Your task to perform on an android device: uninstall "Paramount+ | Peak Streaming" Image 0: 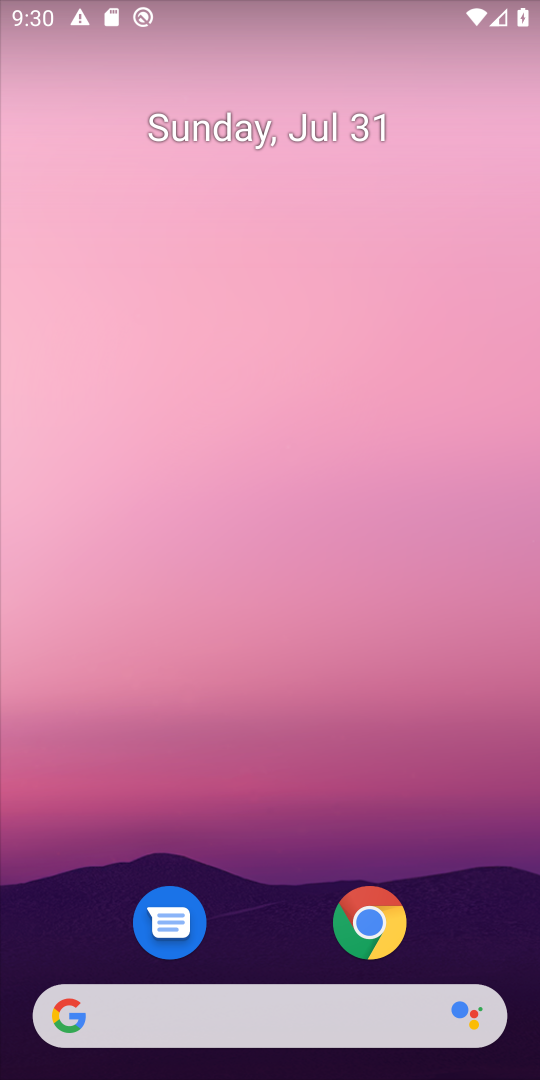
Step 0: drag from (266, 1049) to (264, 57)
Your task to perform on an android device: uninstall "Paramount+ | Peak Streaming" Image 1: 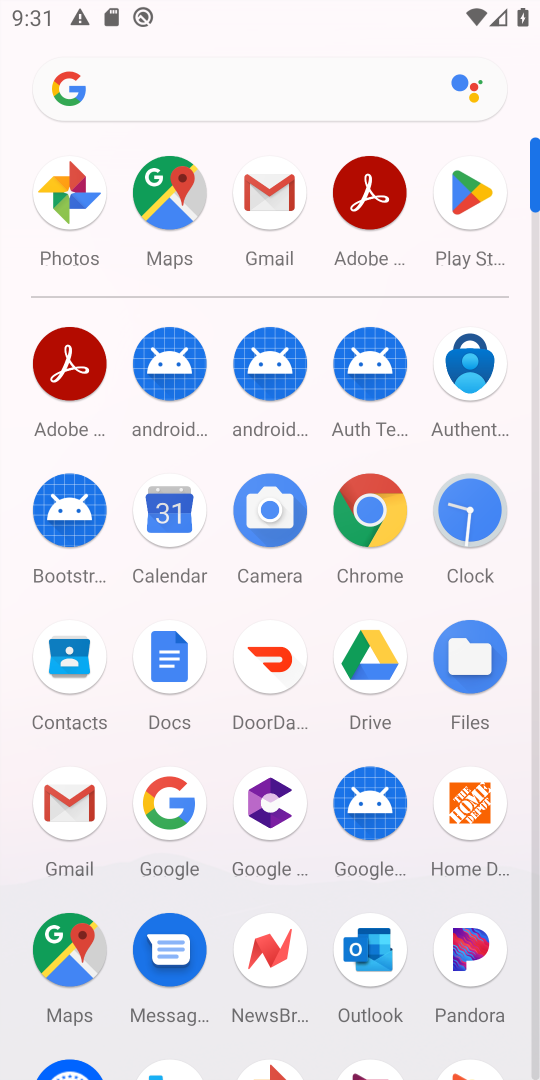
Step 1: click (462, 184)
Your task to perform on an android device: uninstall "Paramount+ | Peak Streaming" Image 2: 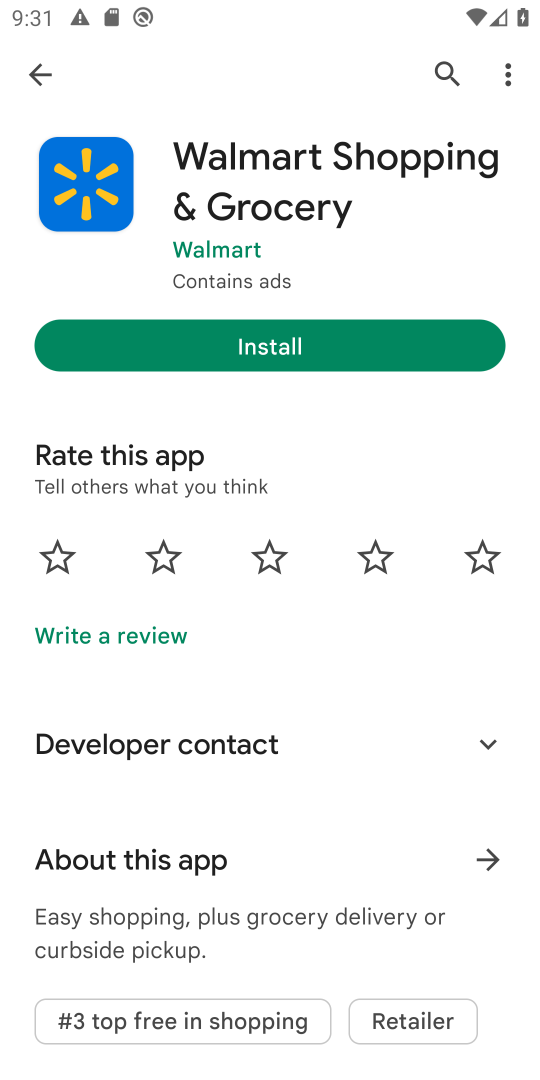
Step 2: click (452, 69)
Your task to perform on an android device: uninstall "Paramount+ | Peak Streaming" Image 3: 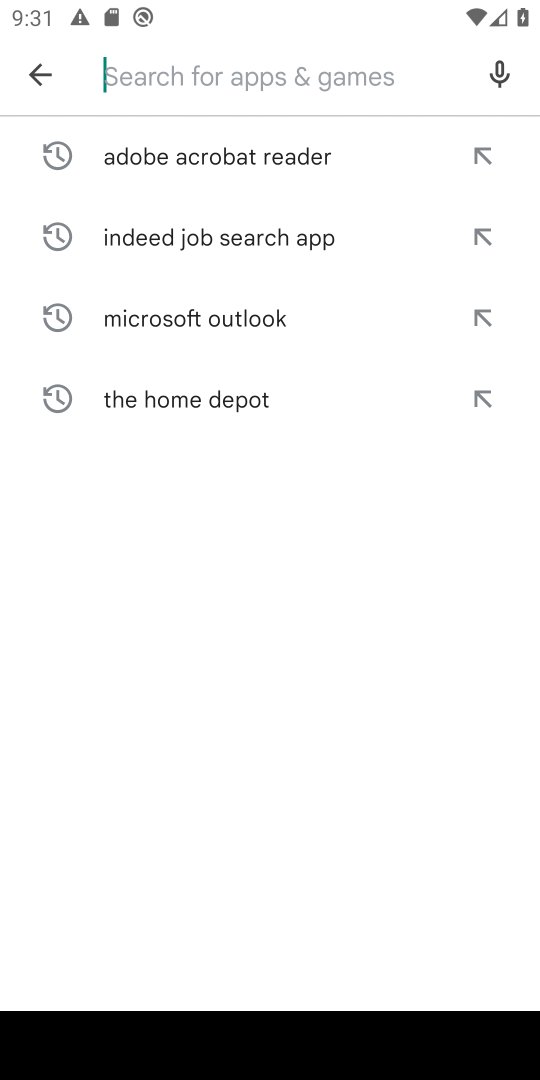
Step 3: type "Paramount+ | Peak Streaming"
Your task to perform on an android device: uninstall "Paramount+ | Peak Streaming" Image 4: 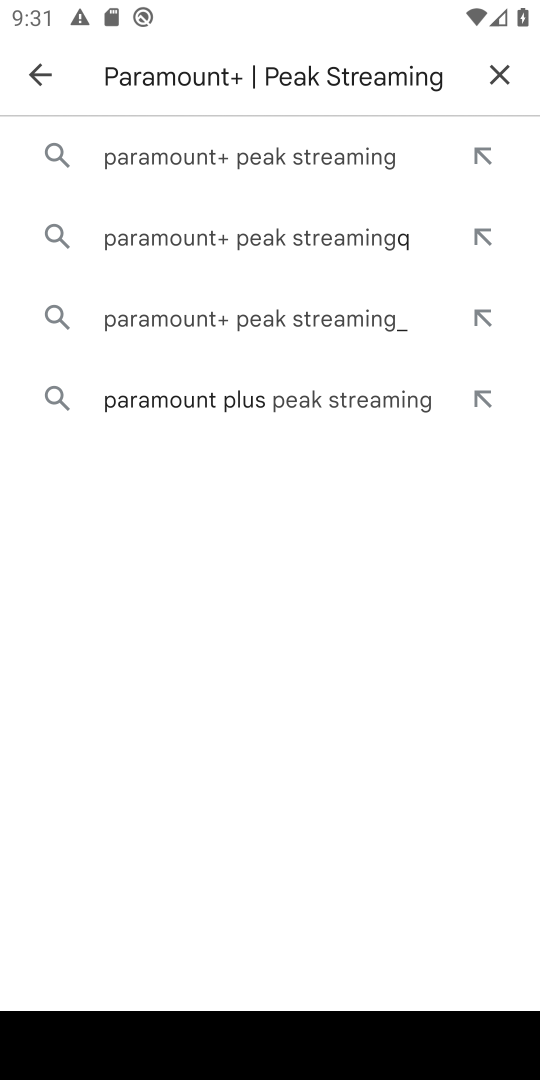
Step 4: click (224, 163)
Your task to perform on an android device: uninstall "Paramount+ | Peak Streaming" Image 5: 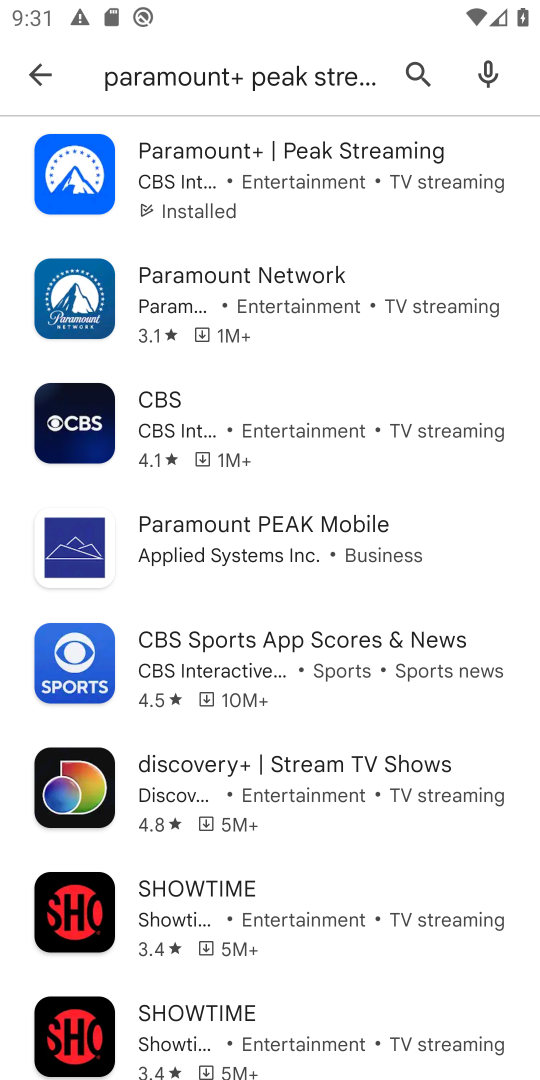
Step 5: click (338, 153)
Your task to perform on an android device: uninstall "Paramount+ | Peak Streaming" Image 6: 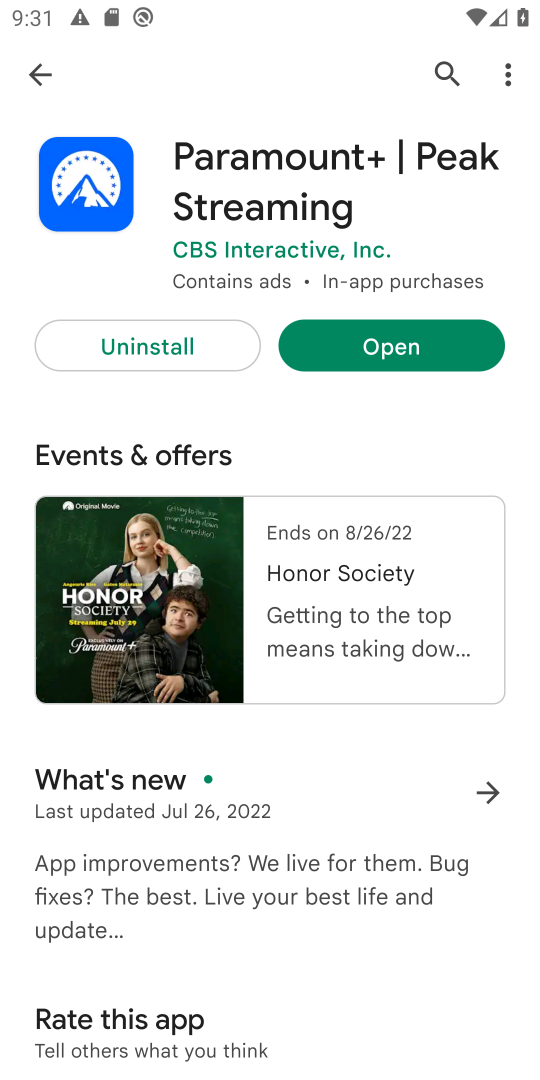
Step 6: click (125, 351)
Your task to perform on an android device: uninstall "Paramount+ | Peak Streaming" Image 7: 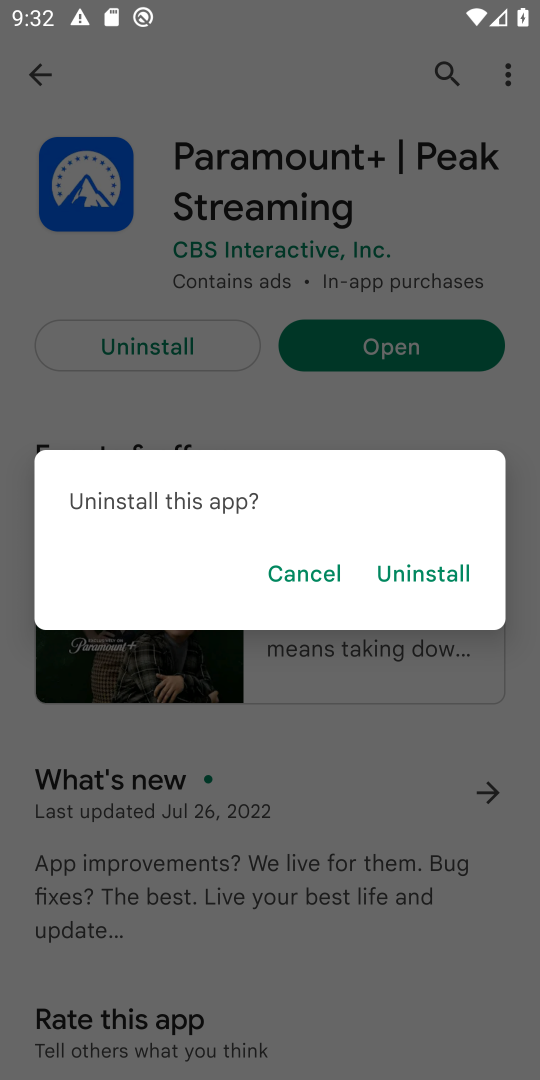
Step 7: click (423, 571)
Your task to perform on an android device: uninstall "Paramount+ | Peak Streaming" Image 8: 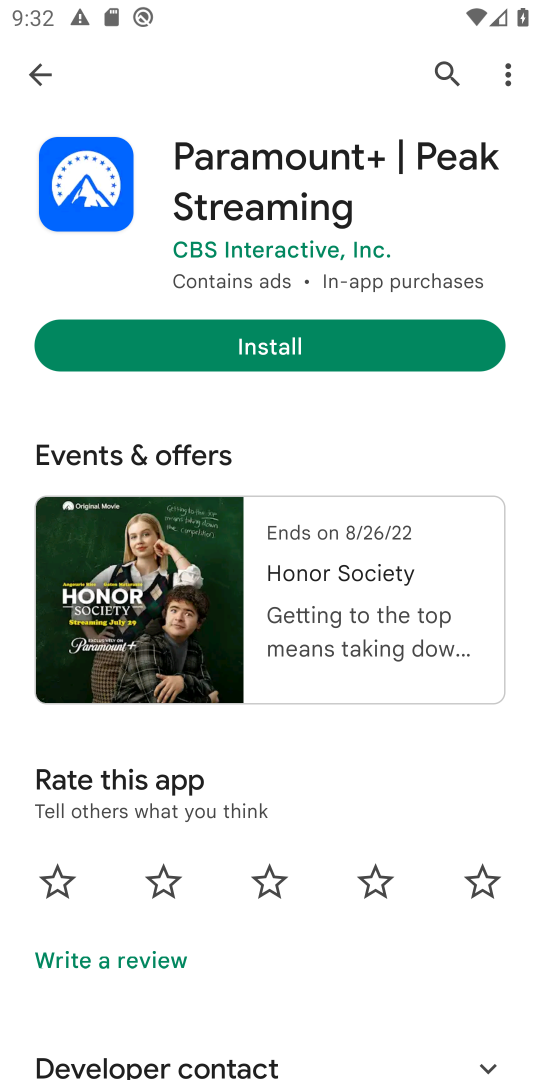
Step 8: task complete